Your task to perform on an android device: open a bookmark in the chrome app Image 0: 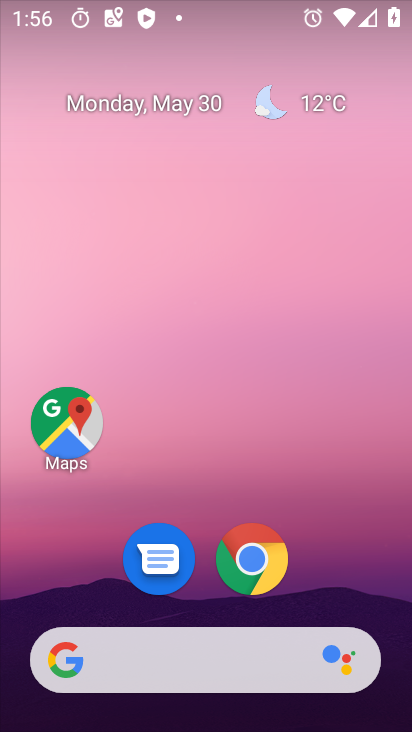
Step 0: click (260, 544)
Your task to perform on an android device: open a bookmark in the chrome app Image 1: 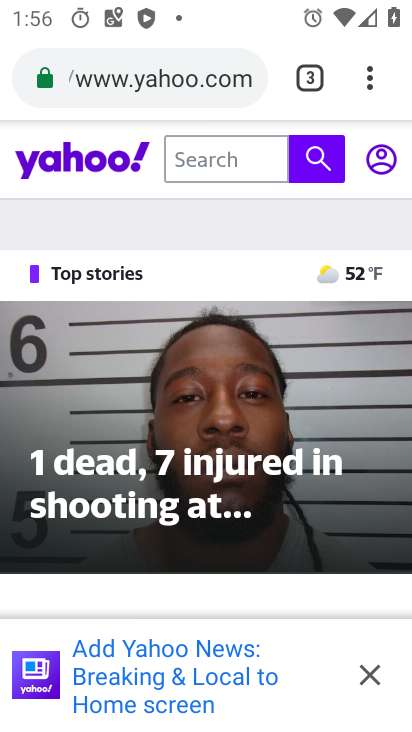
Step 1: drag from (372, 65) to (94, 292)
Your task to perform on an android device: open a bookmark in the chrome app Image 2: 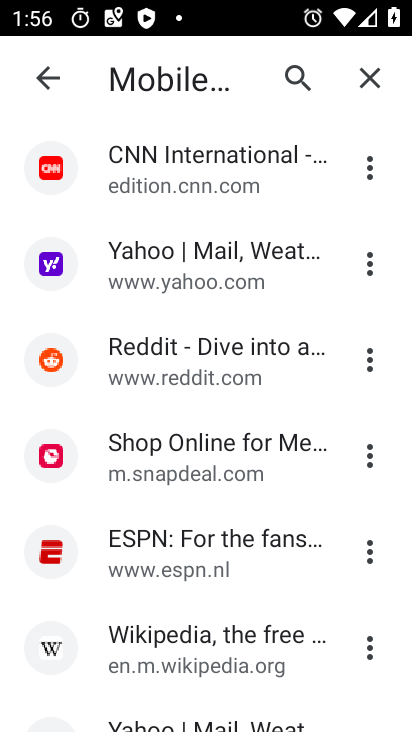
Step 2: click (174, 250)
Your task to perform on an android device: open a bookmark in the chrome app Image 3: 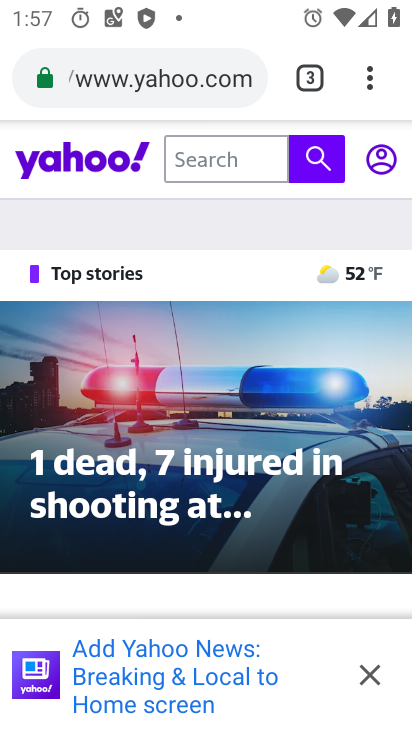
Step 3: task complete